Your task to perform on an android device: set default search engine in the chrome app Image 0: 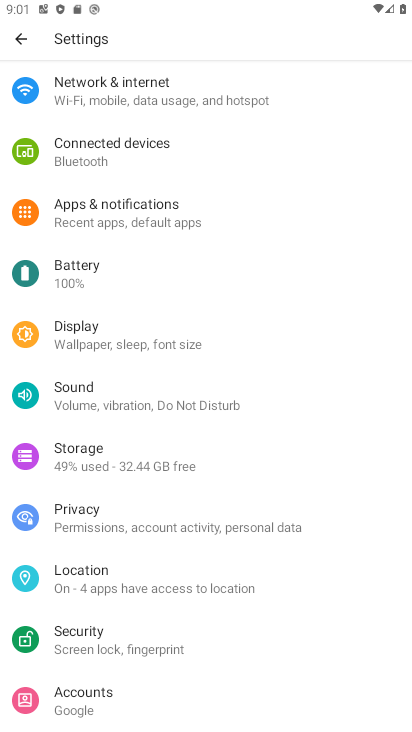
Step 0: press home button
Your task to perform on an android device: set default search engine in the chrome app Image 1: 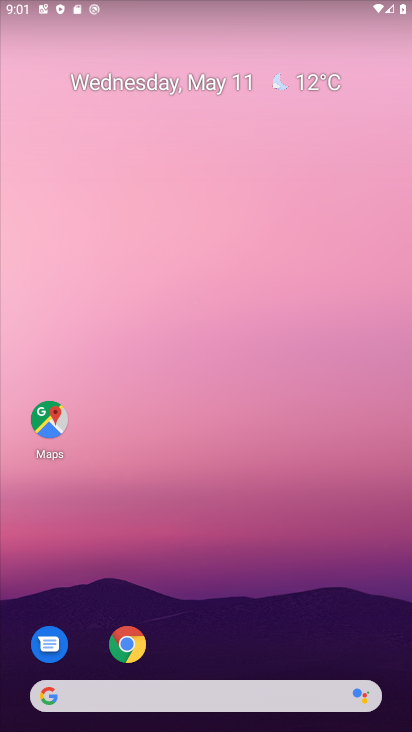
Step 1: click (126, 650)
Your task to perform on an android device: set default search engine in the chrome app Image 2: 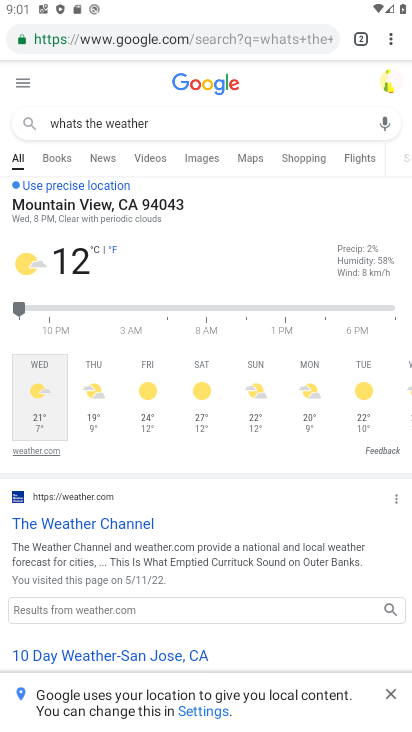
Step 2: click (387, 36)
Your task to perform on an android device: set default search engine in the chrome app Image 3: 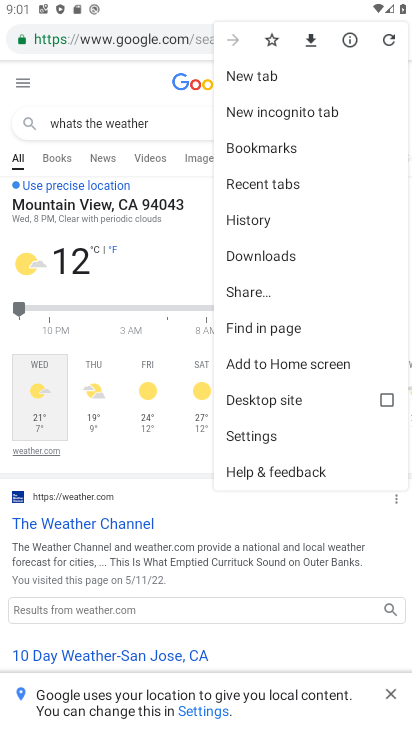
Step 3: click (254, 441)
Your task to perform on an android device: set default search engine in the chrome app Image 4: 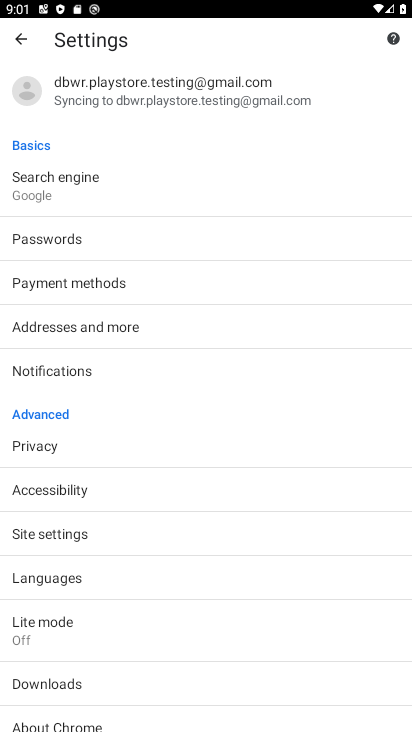
Step 4: click (66, 189)
Your task to perform on an android device: set default search engine in the chrome app Image 5: 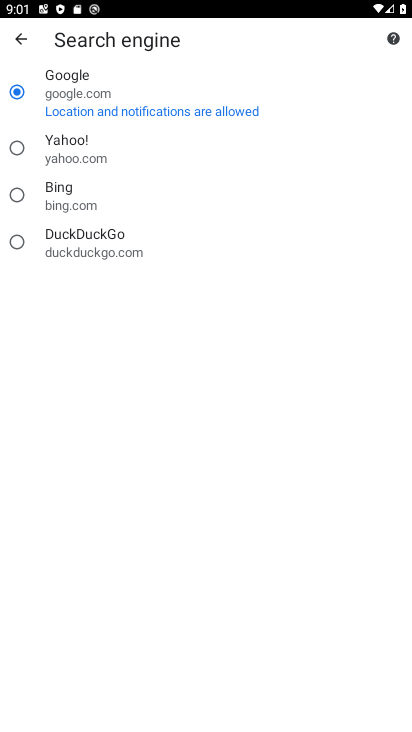
Step 5: click (63, 243)
Your task to perform on an android device: set default search engine in the chrome app Image 6: 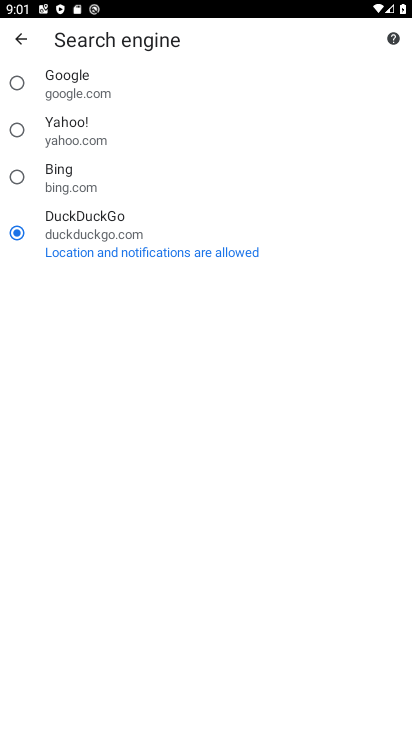
Step 6: task complete